Your task to perform on an android device: Go to network settings Image 0: 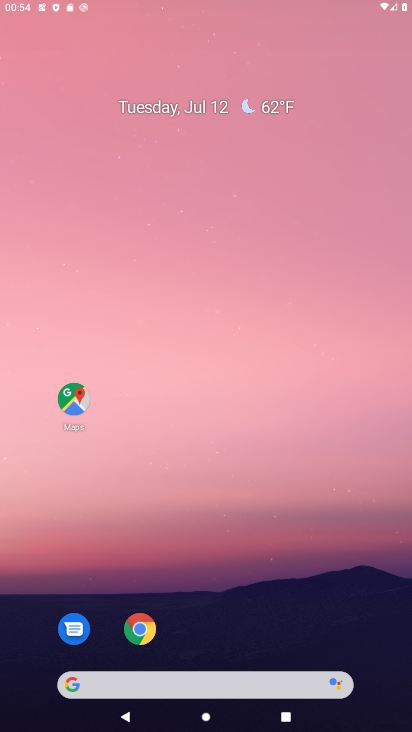
Step 0: press home button
Your task to perform on an android device: Go to network settings Image 1: 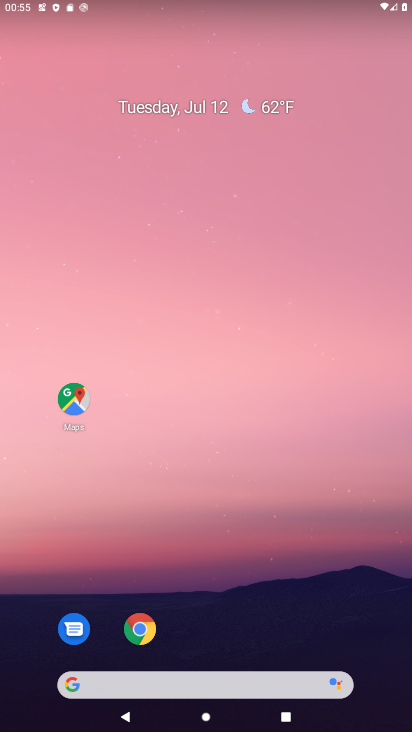
Step 1: drag from (248, 621) to (103, 100)
Your task to perform on an android device: Go to network settings Image 2: 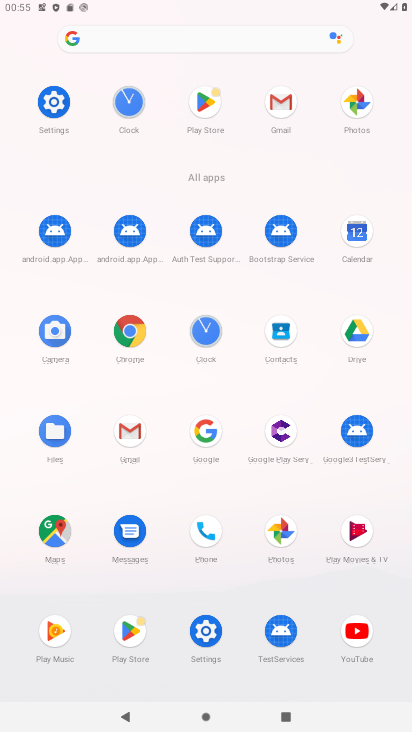
Step 2: click (191, 628)
Your task to perform on an android device: Go to network settings Image 3: 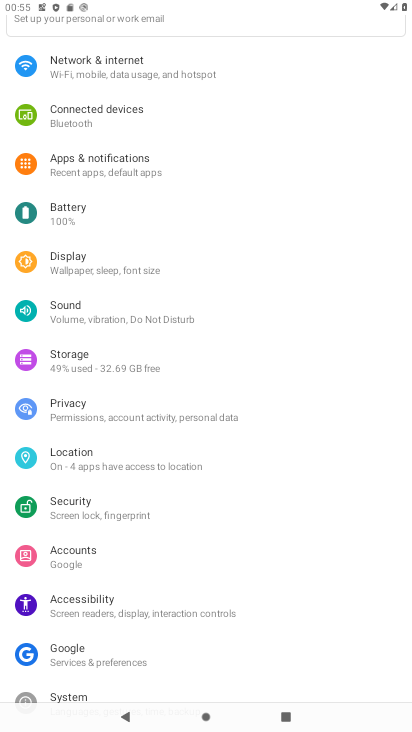
Step 3: click (76, 61)
Your task to perform on an android device: Go to network settings Image 4: 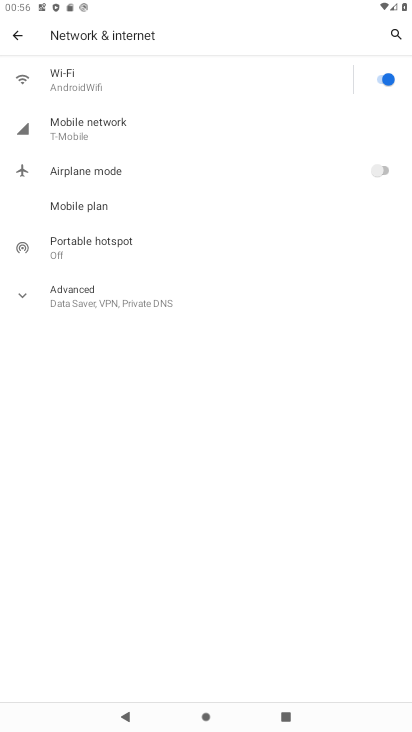
Step 4: press home button
Your task to perform on an android device: Go to network settings Image 5: 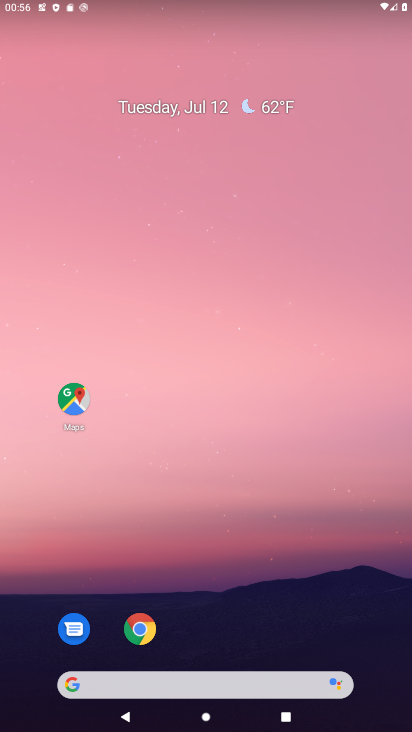
Step 5: drag from (205, 409) to (179, 3)
Your task to perform on an android device: Go to network settings Image 6: 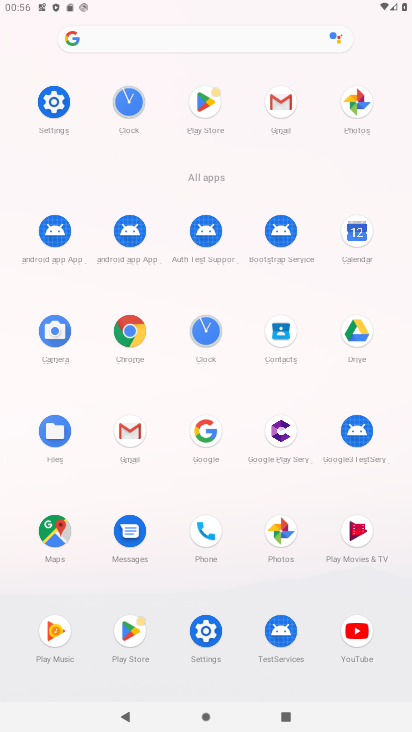
Step 6: click (40, 106)
Your task to perform on an android device: Go to network settings Image 7: 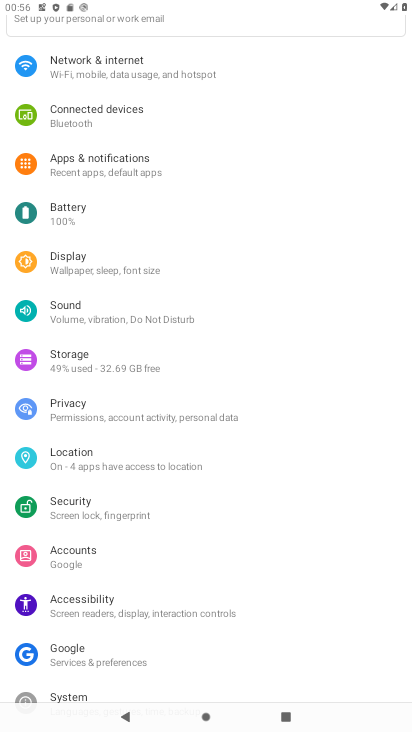
Step 7: click (141, 60)
Your task to perform on an android device: Go to network settings Image 8: 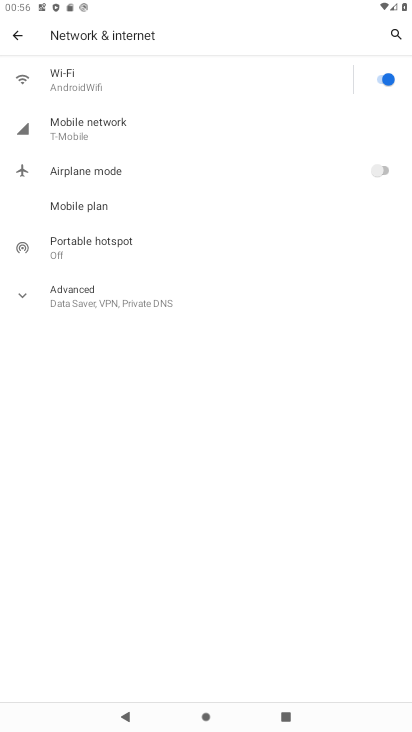
Step 8: task complete